Your task to perform on an android device: toggle translation in the chrome app Image 0: 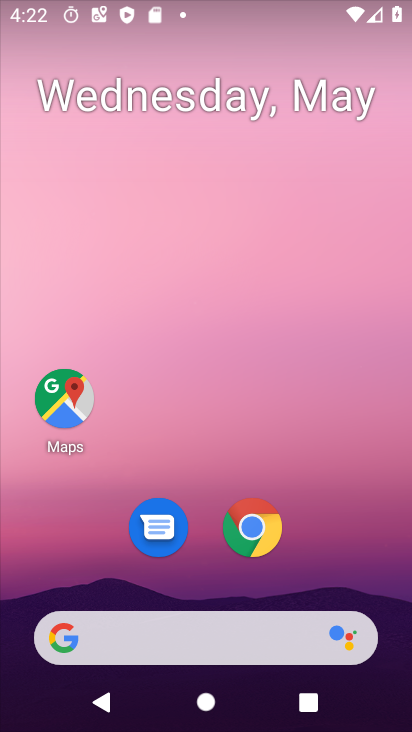
Step 0: click (257, 534)
Your task to perform on an android device: toggle translation in the chrome app Image 1: 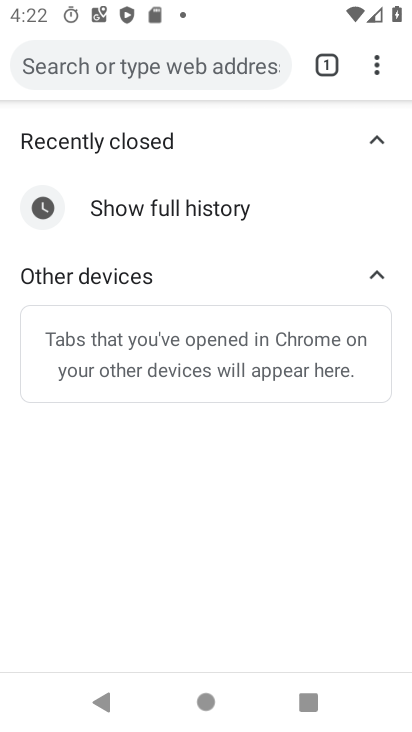
Step 1: drag from (375, 58) to (167, 547)
Your task to perform on an android device: toggle translation in the chrome app Image 2: 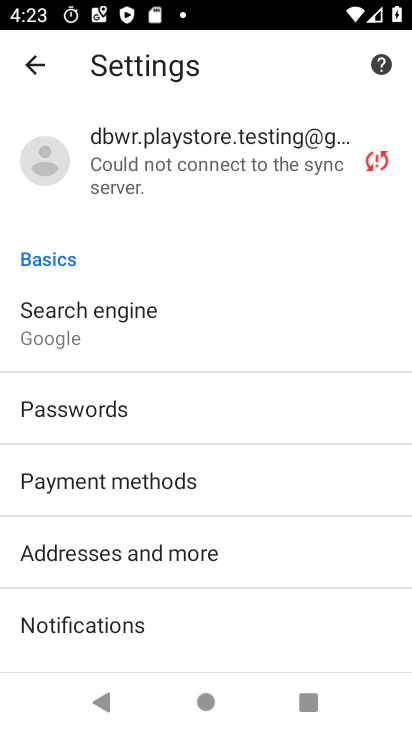
Step 2: drag from (248, 588) to (231, 233)
Your task to perform on an android device: toggle translation in the chrome app Image 3: 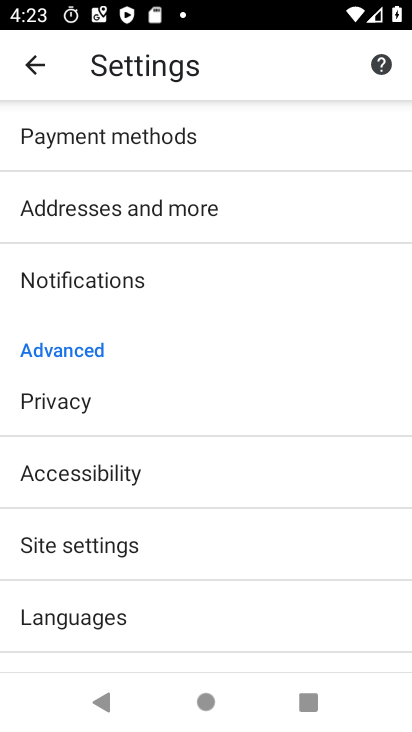
Step 3: click (52, 616)
Your task to perform on an android device: toggle translation in the chrome app Image 4: 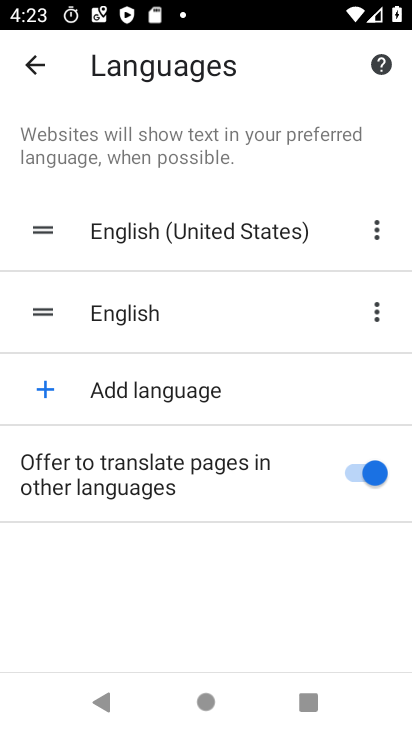
Step 4: click (346, 471)
Your task to perform on an android device: toggle translation in the chrome app Image 5: 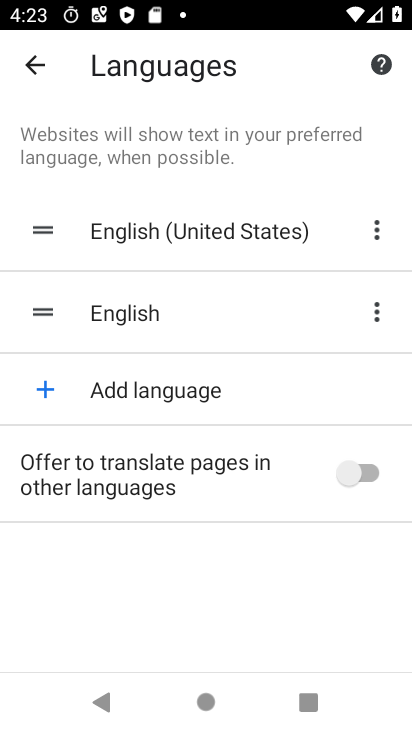
Step 5: task complete